Your task to perform on an android device: Search for Italian restaurants on Maps Image 0: 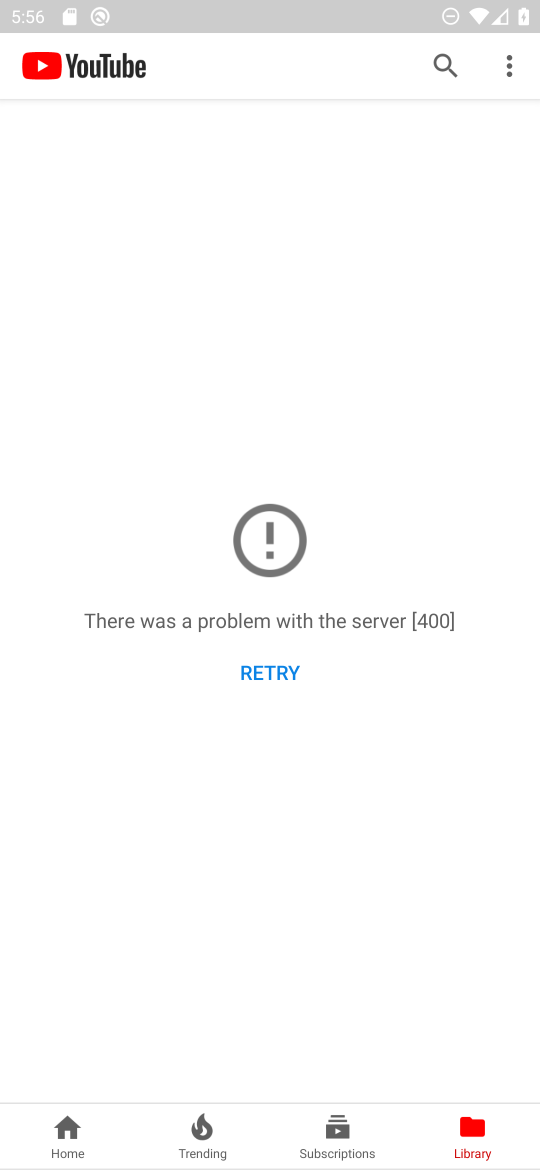
Step 0: press home button
Your task to perform on an android device: Search for Italian restaurants on Maps Image 1: 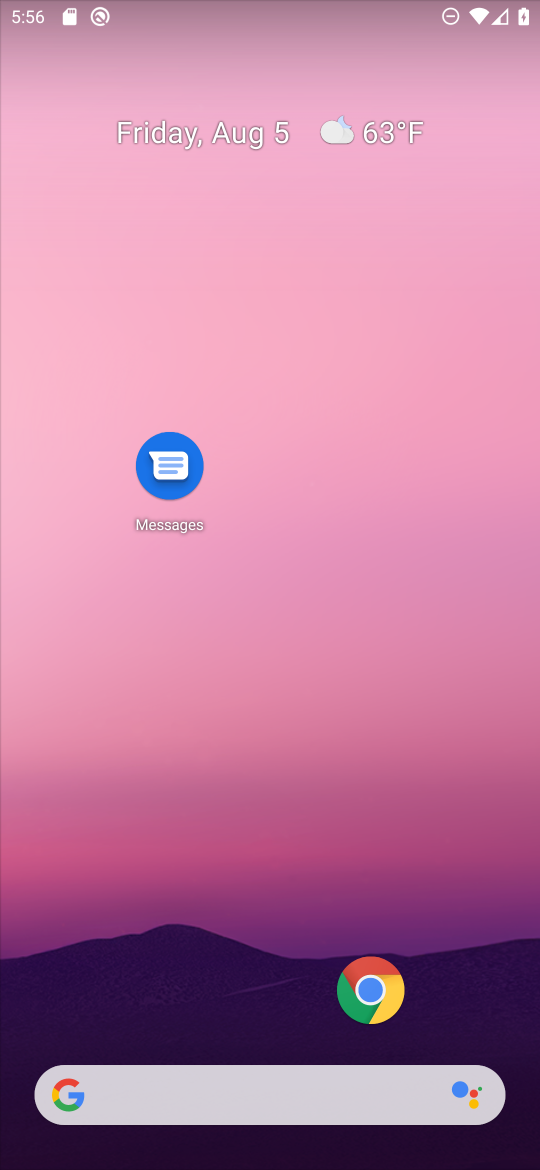
Step 1: drag from (213, 817) to (167, 446)
Your task to perform on an android device: Search for Italian restaurants on Maps Image 2: 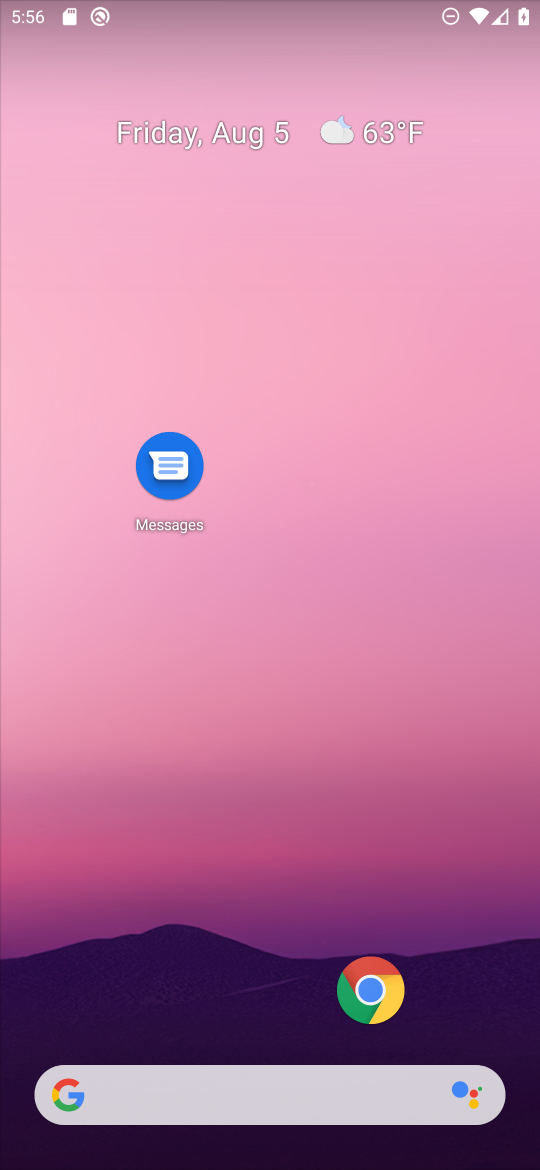
Step 2: drag from (241, 897) to (150, 312)
Your task to perform on an android device: Search for Italian restaurants on Maps Image 3: 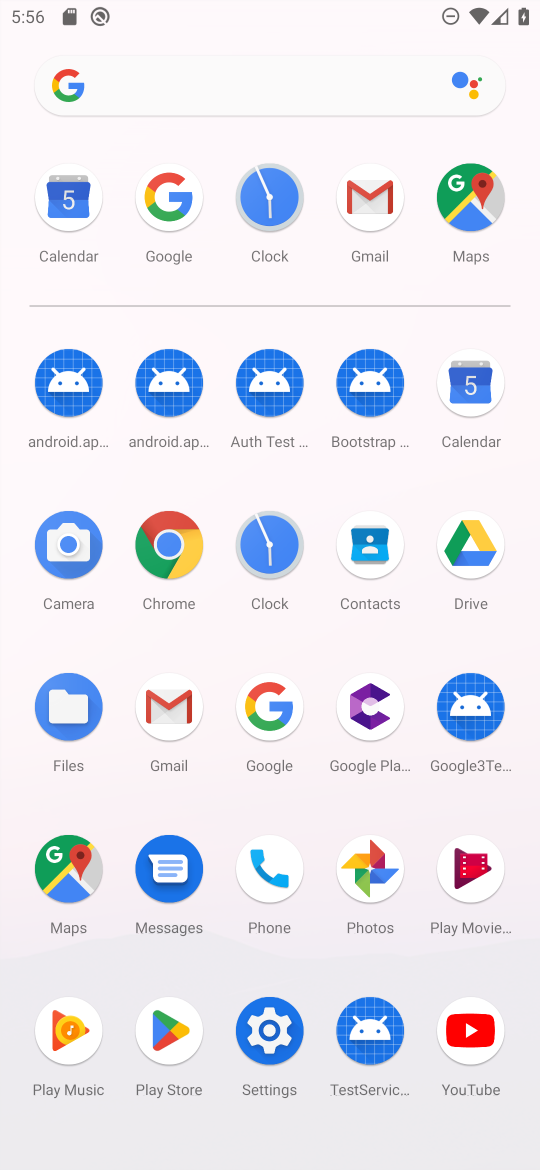
Step 3: click (53, 872)
Your task to perform on an android device: Search for Italian restaurants on Maps Image 4: 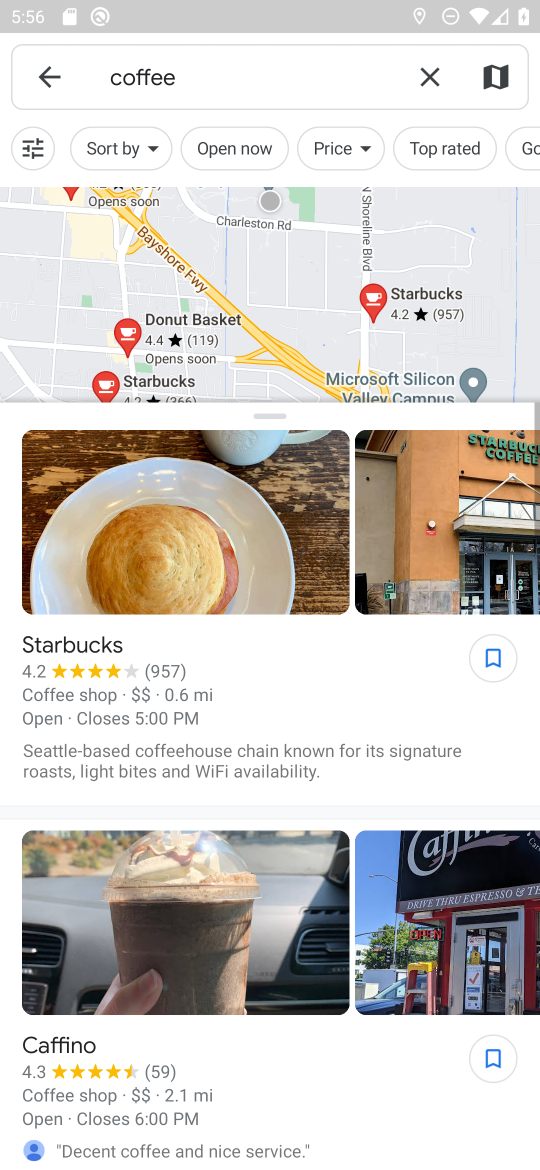
Step 4: click (411, 79)
Your task to perform on an android device: Search for Italian restaurants on Maps Image 5: 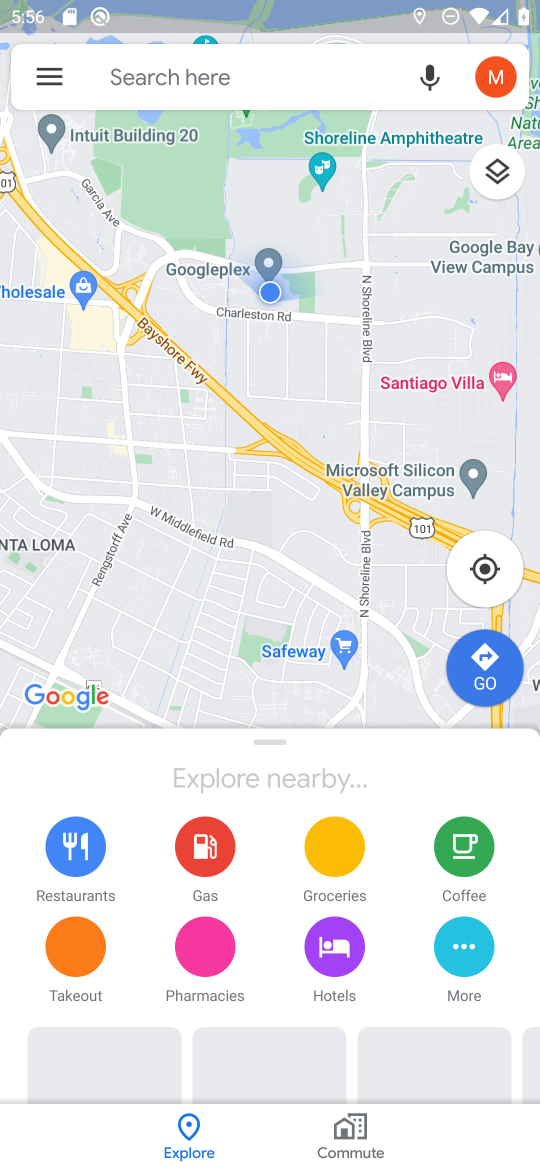
Step 5: click (195, 72)
Your task to perform on an android device: Search for Italian restaurants on Maps Image 6: 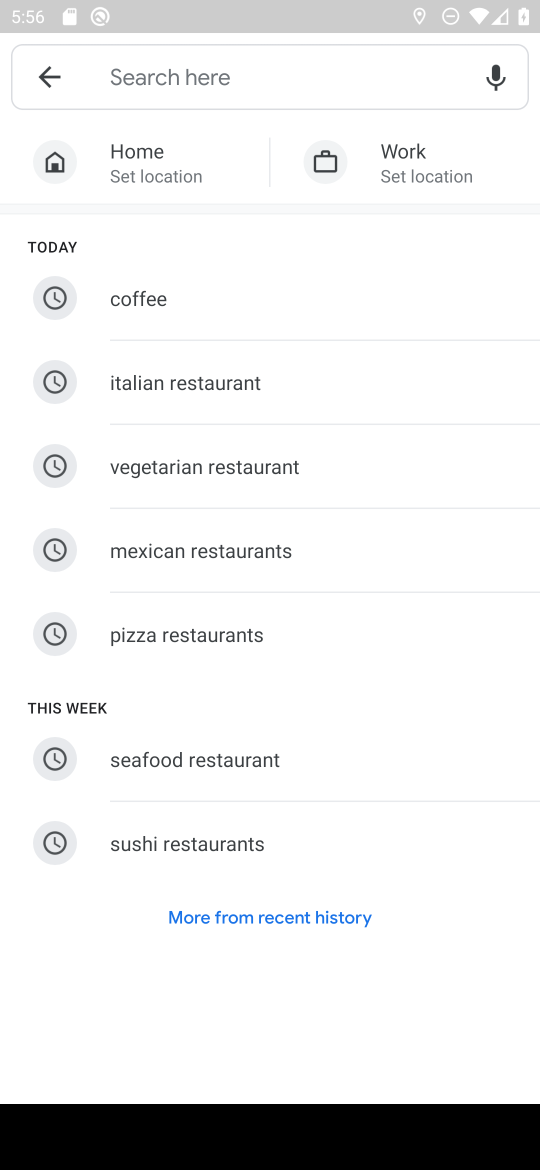
Step 6: click (177, 394)
Your task to perform on an android device: Search for Italian restaurants on Maps Image 7: 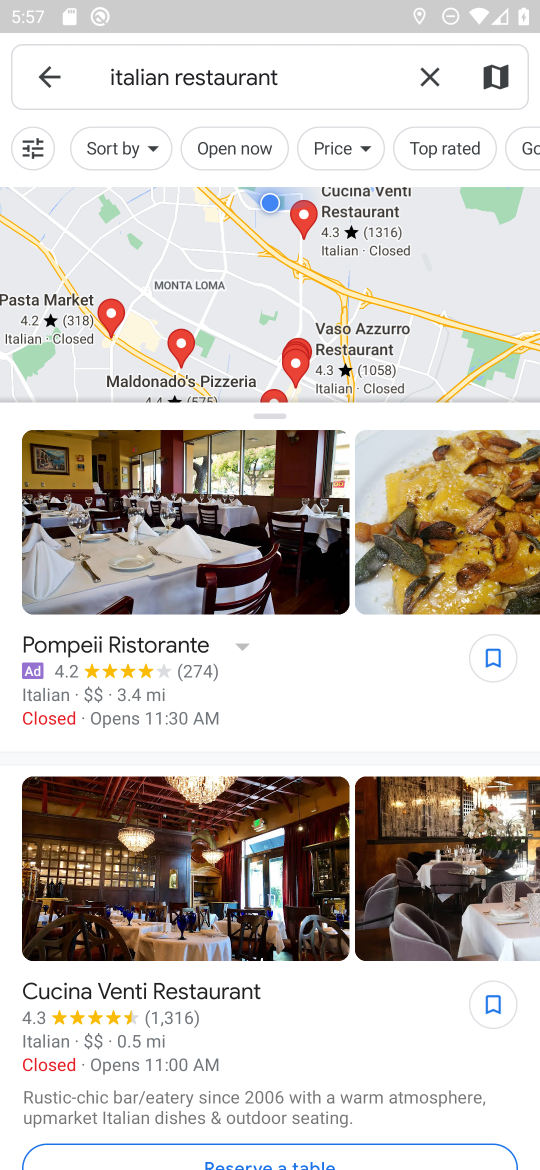
Step 7: task complete